Your task to perform on an android device: turn off priority inbox in the gmail app Image 0: 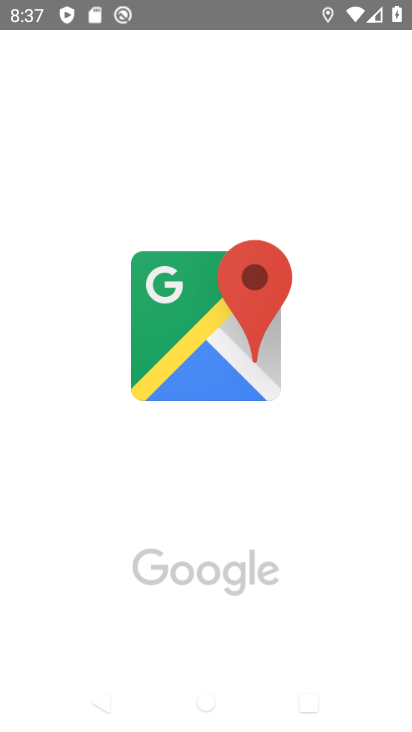
Step 0: press home button
Your task to perform on an android device: turn off priority inbox in the gmail app Image 1: 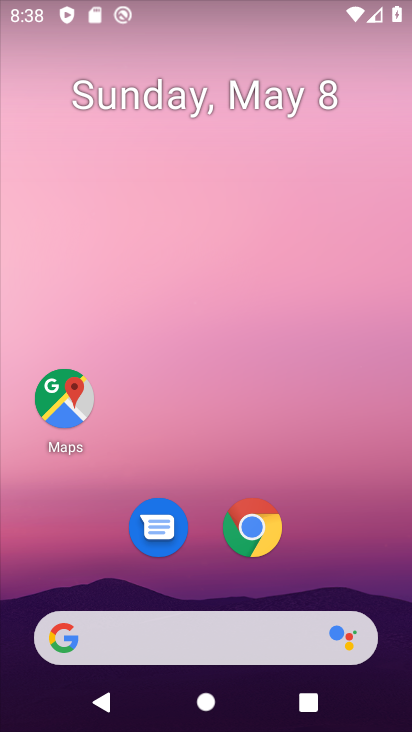
Step 1: drag from (216, 580) to (267, 44)
Your task to perform on an android device: turn off priority inbox in the gmail app Image 2: 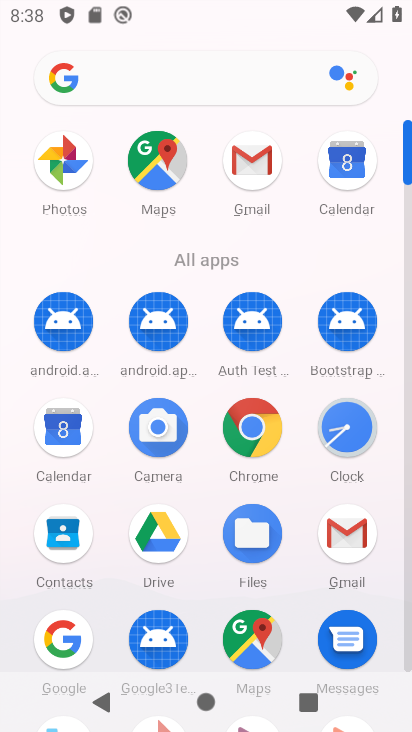
Step 2: click (248, 170)
Your task to perform on an android device: turn off priority inbox in the gmail app Image 3: 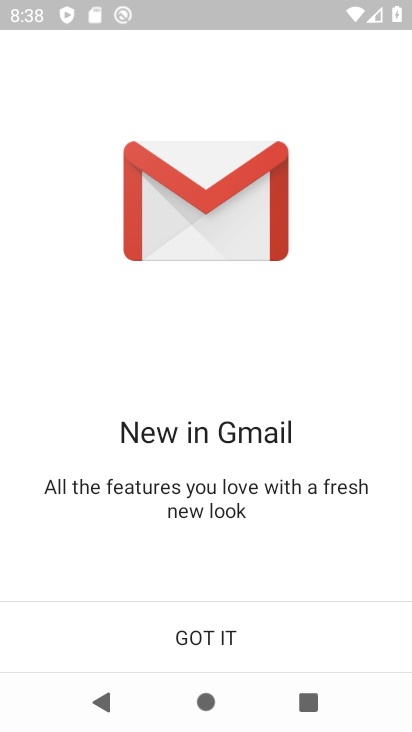
Step 3: click (226, 638)
Your task to perform on an android device: turn off priority inbox in the gmail app Image 4: 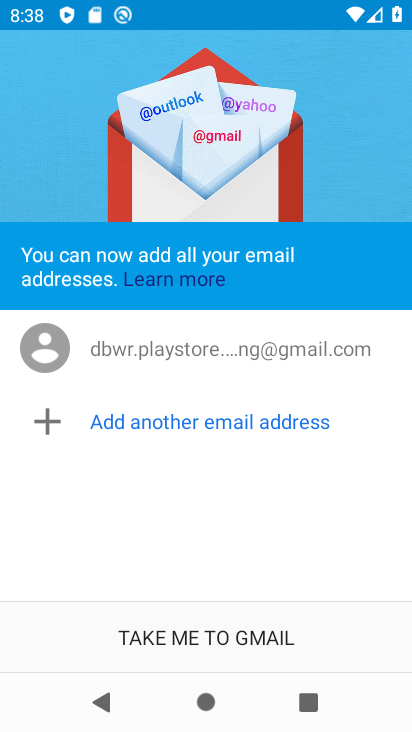
Step 4: click (193, 640)
Your task to perform on an android device: turn off priority inbox in the gmail app Image 5: 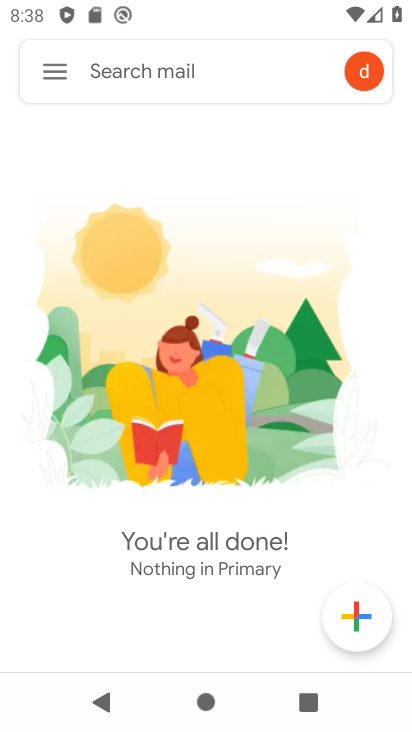
Step 5: click (51, 66)
Your task to perform on an android device: turn off priority inbox in the gmail app Image 6: 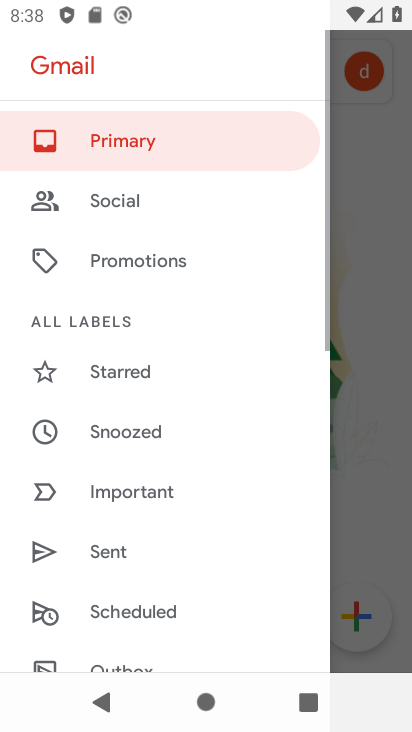
Step 6: drag from (188, 609) to (209, 51)
Your task to perform on an android device: turn off priority inbox in the gmail app Image 7: 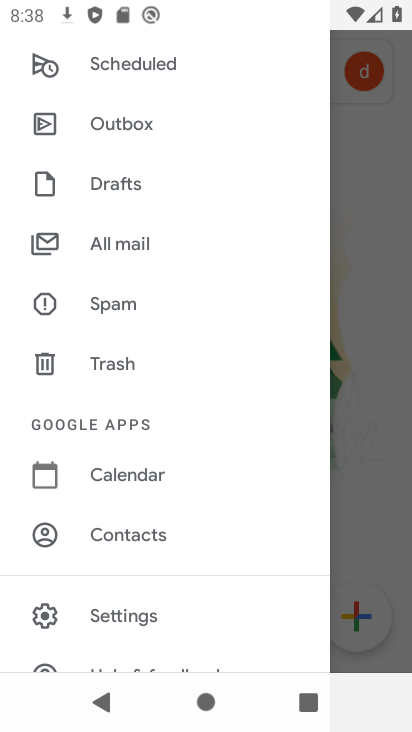
Step 7: click (116, 622)
Your task to perform on an android device: turn off priority inbox in the gmail app Image 8: 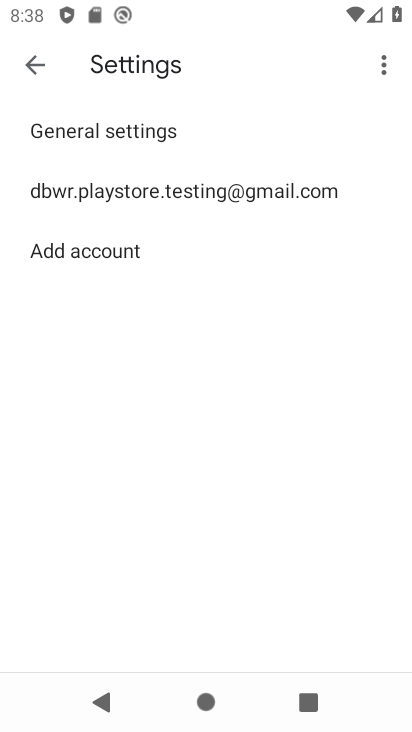
Step 8: click (115, 197)
Your task to perform on an android device: turn off priority inbox in the gmail app Image 9: 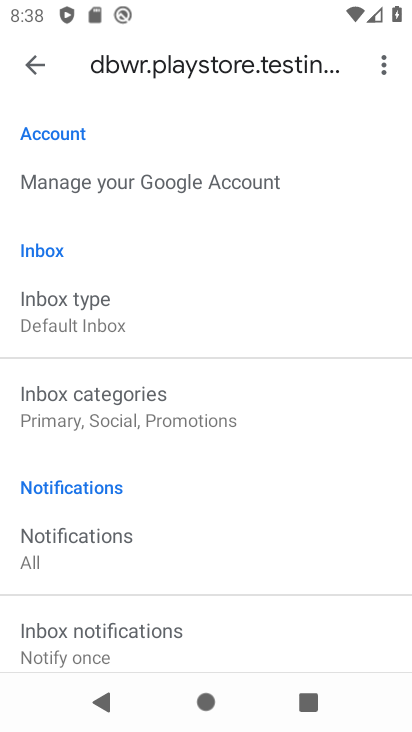
Step 9: task complete